Your task to perform on an android device: Do I have any events this weekend? Image 0: 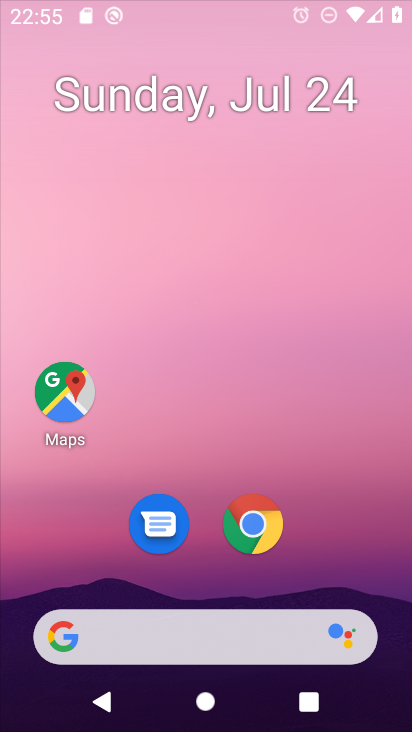
Step 0: press home button
Your task to perform on an android device: Do I have any events this weekend? Image 1: 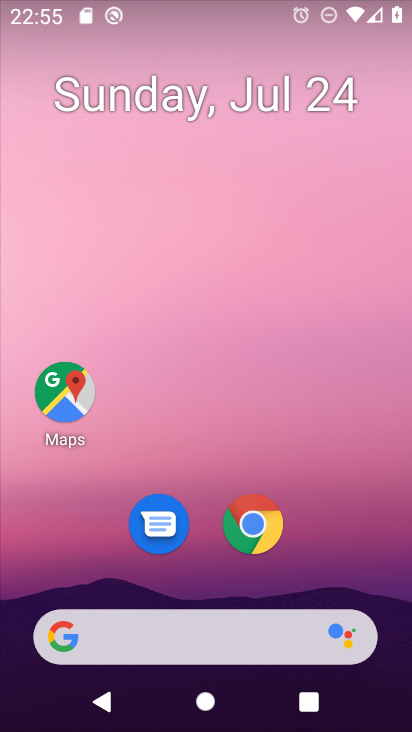
Step 1: drag from (160, 641) to (274, 158)
Your task to perform on an android device: Do I have any events this weekend? Image 2: 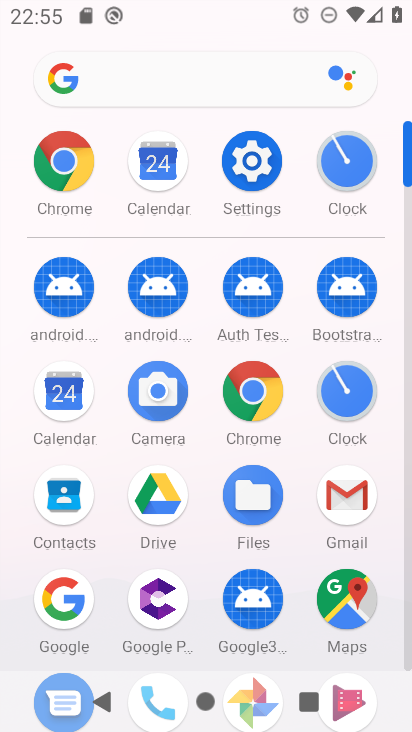
Step 2: click (61, 383)
Your task to perform on an android device: Do I have any events this weekend? Image 3: 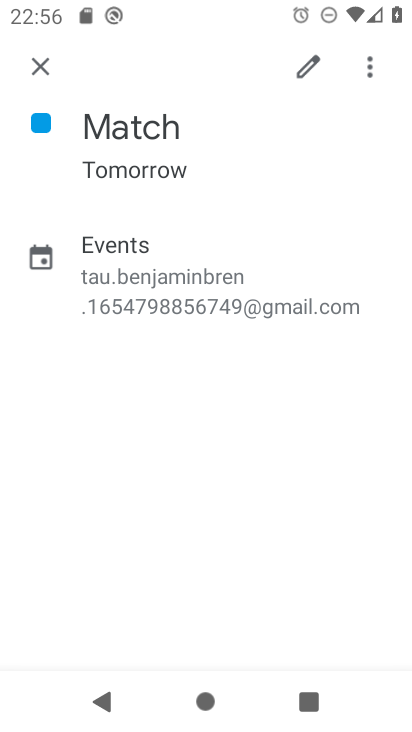
Step 3: click (38, 60)
Your task to perform on an android device: Do I have any events this weekend? Image 4: 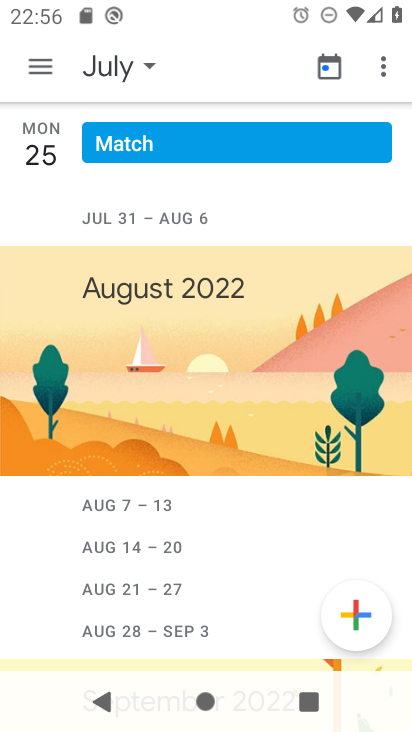
Step 4: click (116, 65)
Your task to perform on an android device: Do I have any events this weekend? Image 5: 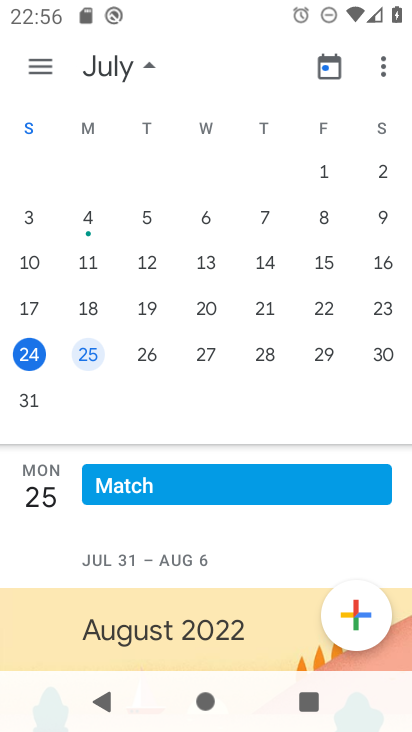
Step 5: click (378, 355)
Your task to perform on an android device: Do I have any events this weekend? Image 6: 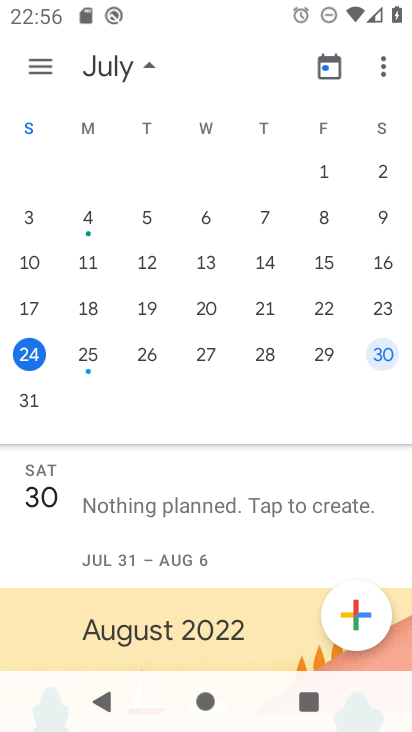
Step 6: click (35, 66)
Your task to perform on an android device: Do I have any events this weekend? Image 7: 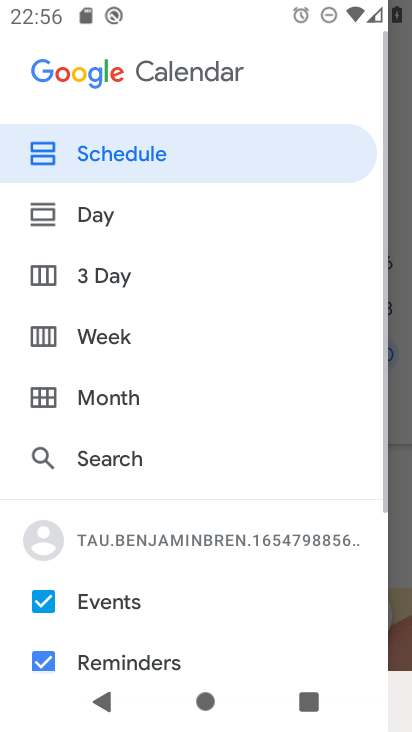
Step 7: click (76, 156)
Your task to perform on an android device: Do I have any events this weekend? Image 8: 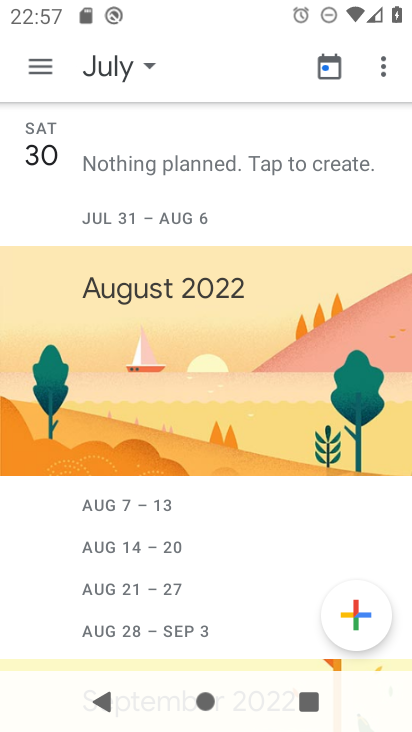
Step 8: task complete